Your task to perform on an android device: Go to Yahoo.com Image 0: 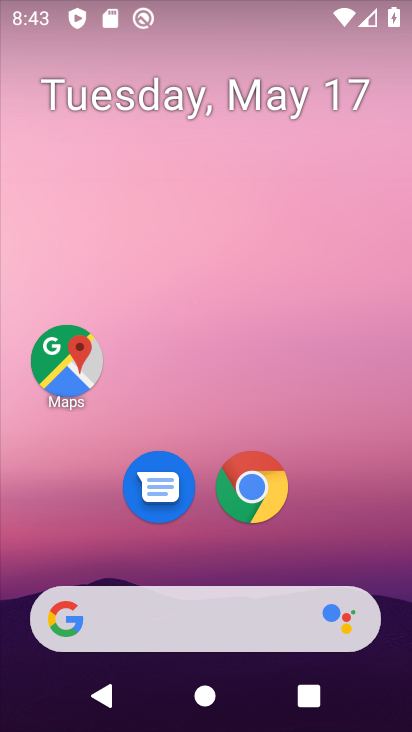
Step 0: press home button
Your task to perform on an android device: Go to Yahoo.com Image 1: 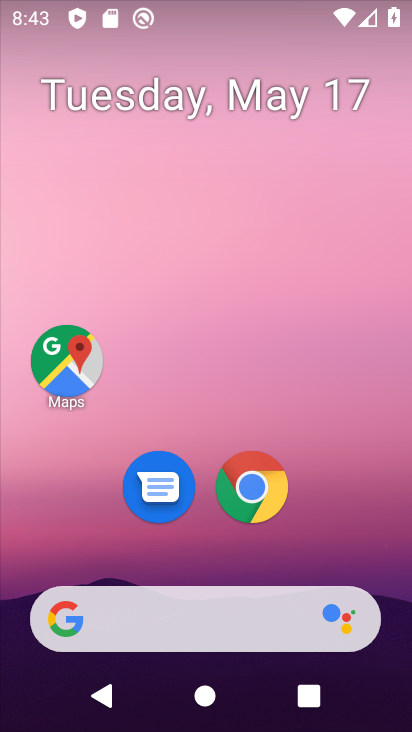
Step 1: drag from (247, 626) to (248, 227)
Your task to perform on an android device: Go to Yahoo.com Image 2: 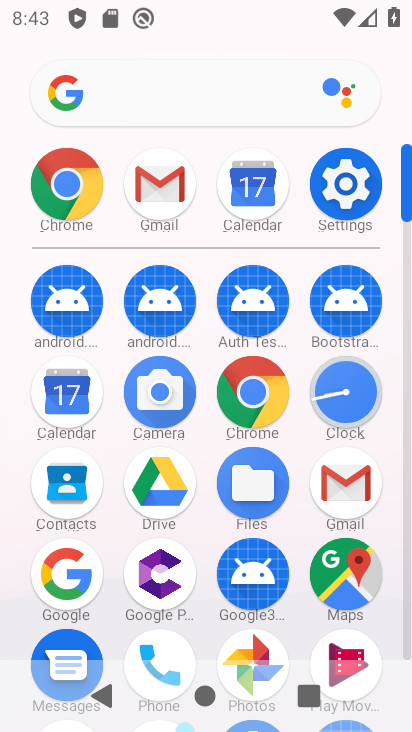
Step 2: click (83, 205)
Your task to perform on an android device: Go to Yahoo.com Image 3: 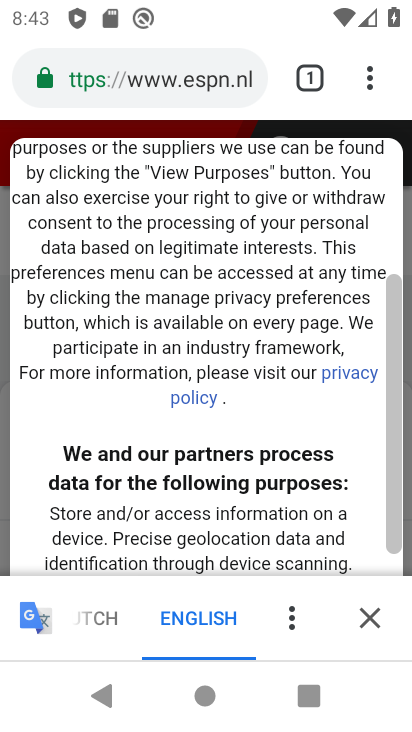
Step 3: click (171, 91)
Your task to perform on an android device: Go to Yahoo.com Image 4: 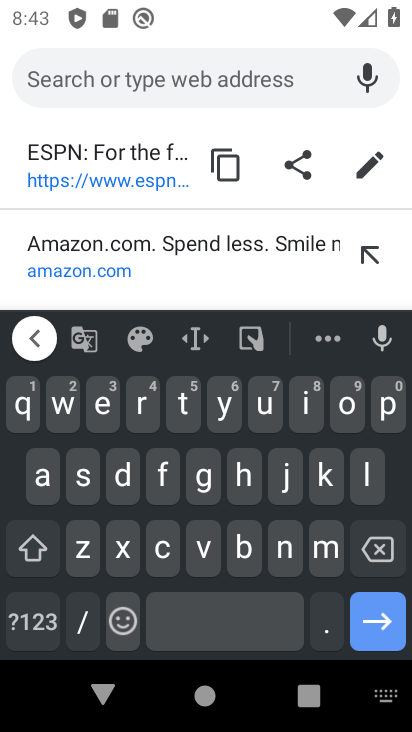
Step 4: click (224, 411)
Your task to perform on an android device: Go to Yahoo.com Image 5: 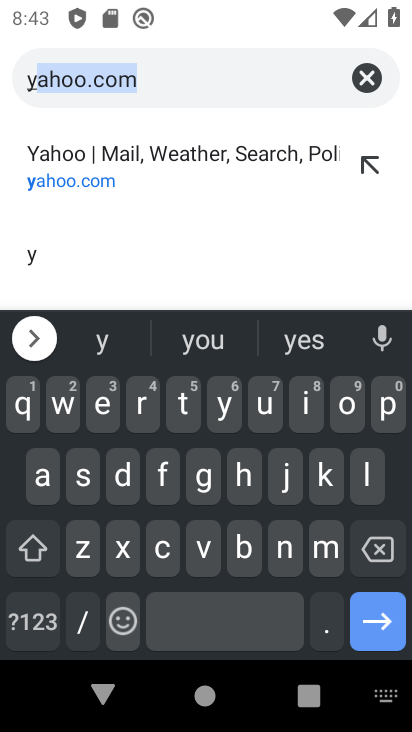
Step 5: click (169, 86)
Your task to perform on an android device: Go to Yahoo.com Image 6: 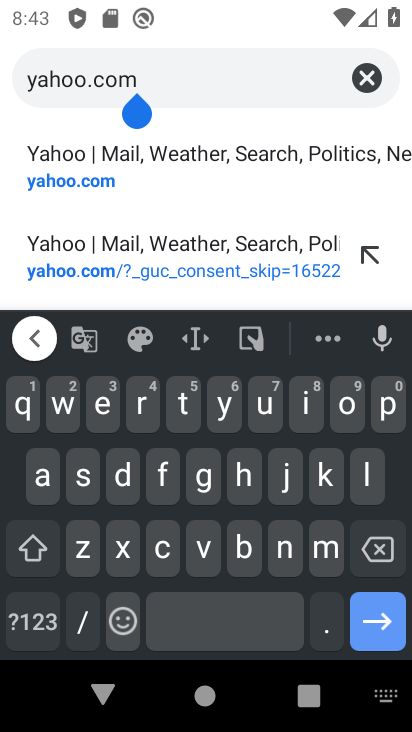
Step 6: click (394, 613)
Your task to perform on an android device: Go to Yahoo.com Image 7: 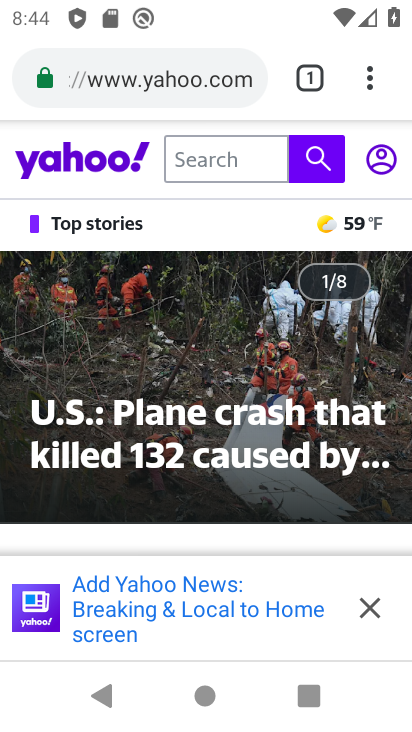
Step 7: task complete